Your task to perform on an android device: Show me recent news Image 0: 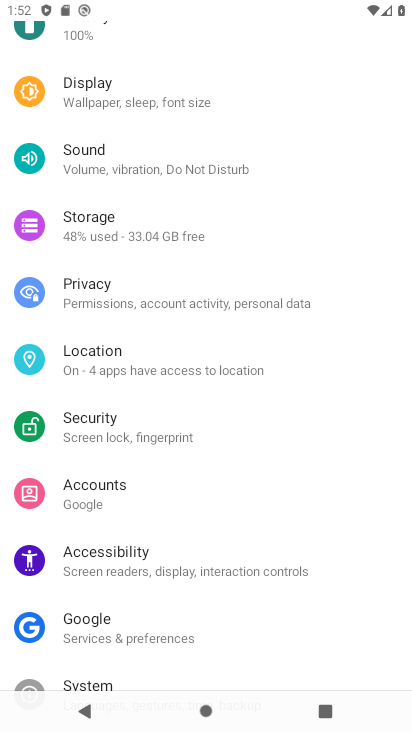
Step 0: press home button
Your task to perform on an android device: Show me recent news Image 1: 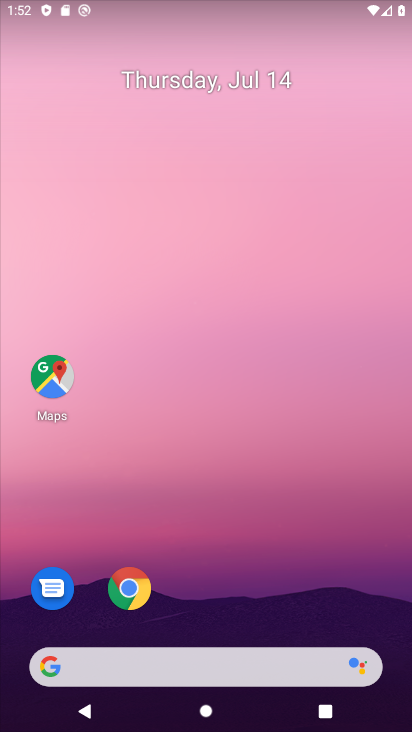
Step 1: click (154, 666)
Your task to perform on an android device: Show me recent news Image 2: 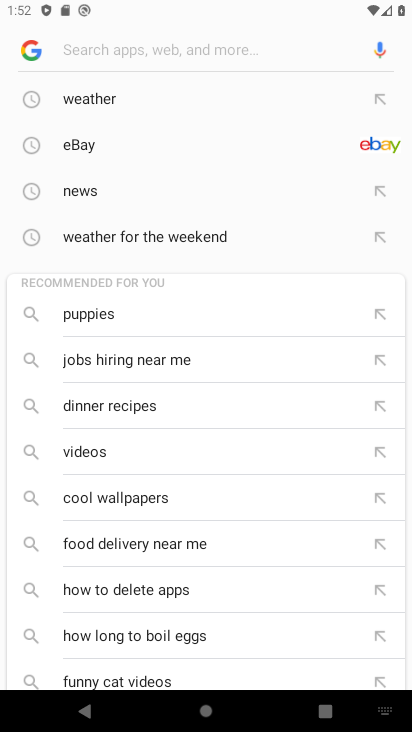
Step 2: type "recent news"
Your task to perform on an android device: Show me recent news Image 3: 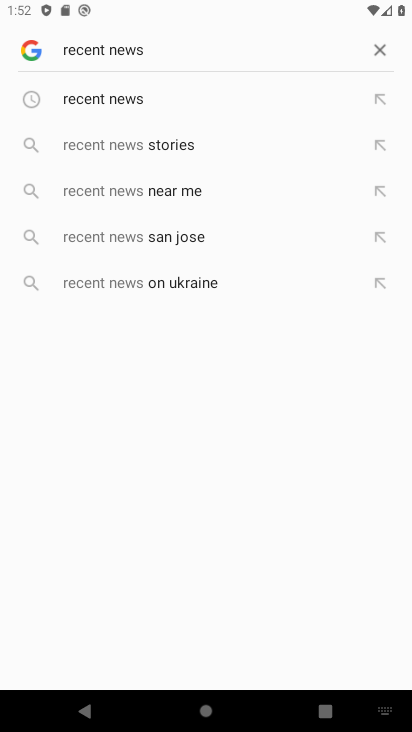
Step 3: click (253, 93)
Your task to perform on an android device: Show me recent news Image 4: 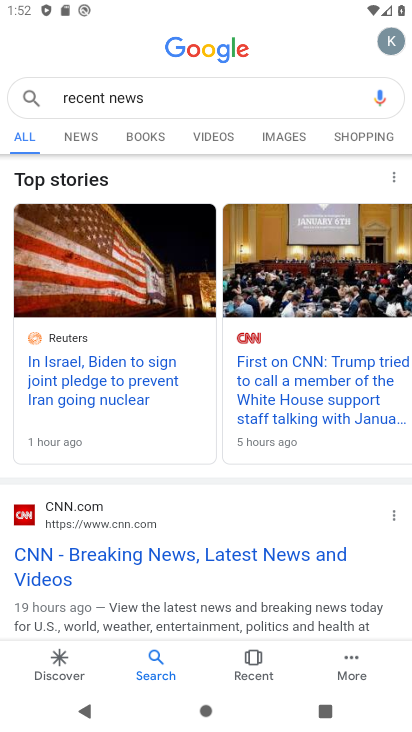
Step 4: task complete